Your task to perform on an android device: Search for usb-a to usb-b on bestbuy, select the first entry, and add it to the cart. Image 0: 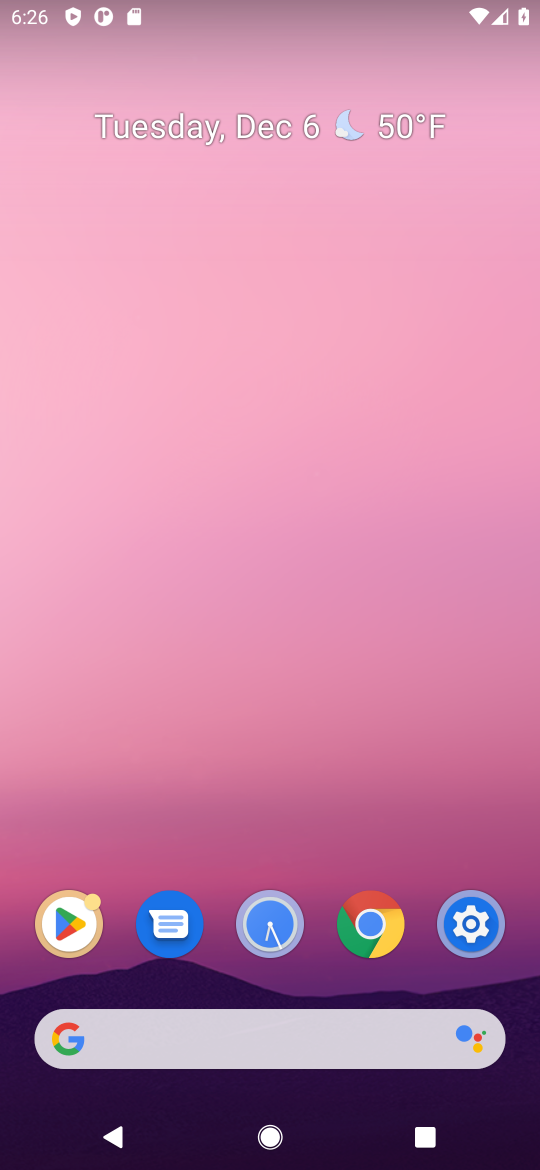
Step 0: click (202, 1034)
Your task to perform on an android device: Search for usb-a to usb-b on bestbuy, select the first entry, and add it to the cart. Image 1: 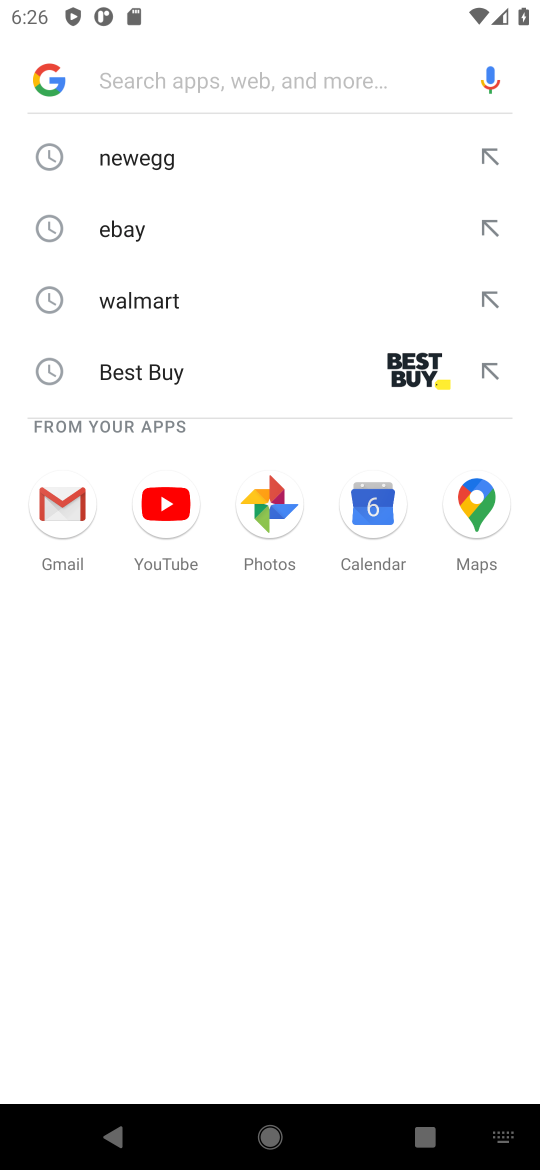
Step 1: type "bestbuy"
Your task to perform on an android device: Search for usb-a to usb-b on bestbuy, select the first entry, and add it to the cart. Image 2: 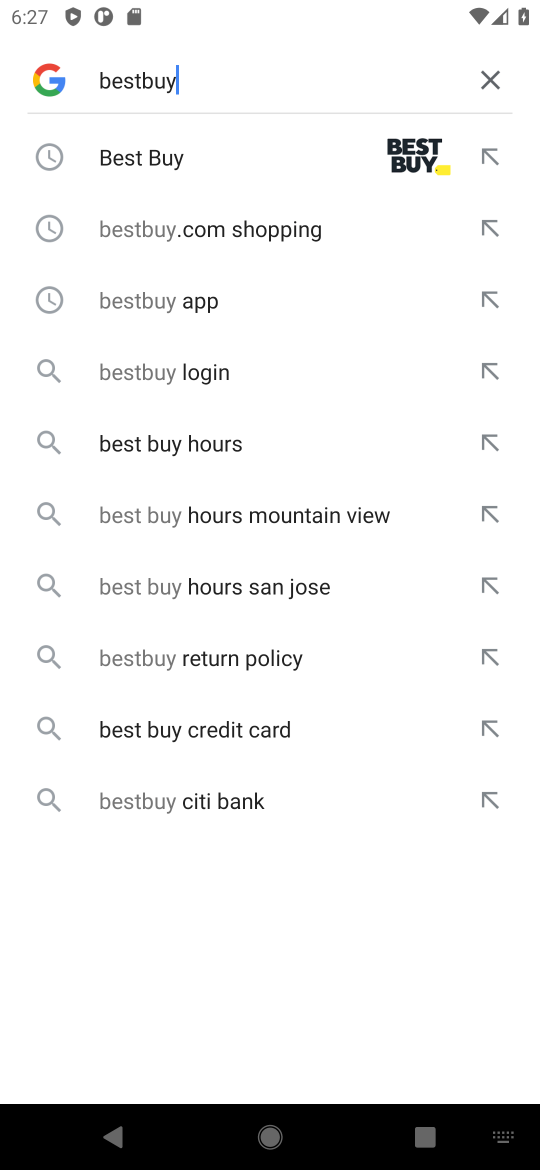
Step 2: click (252, 150)
Your task to perform on an android device: Search for usb-a to usb-b on bestbuy, select the first entry, and add it to the cart. Image 3: 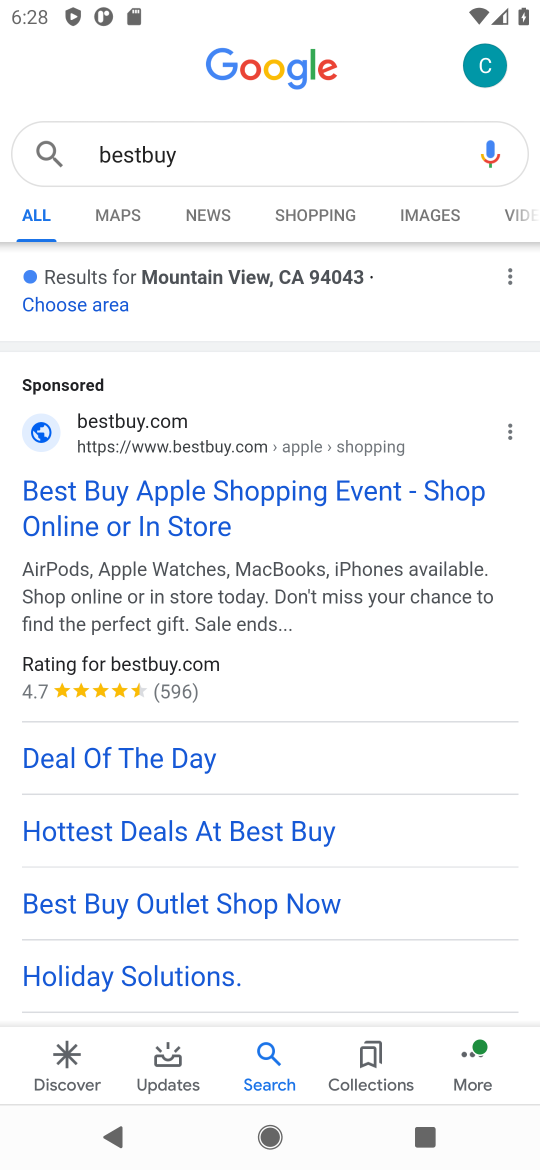
Step 3: click (138, 528)
Your task to perform on an android device: Search for usb-a to usb-b on bestbuy, select the first entry, and add it to the cart. Image 4: 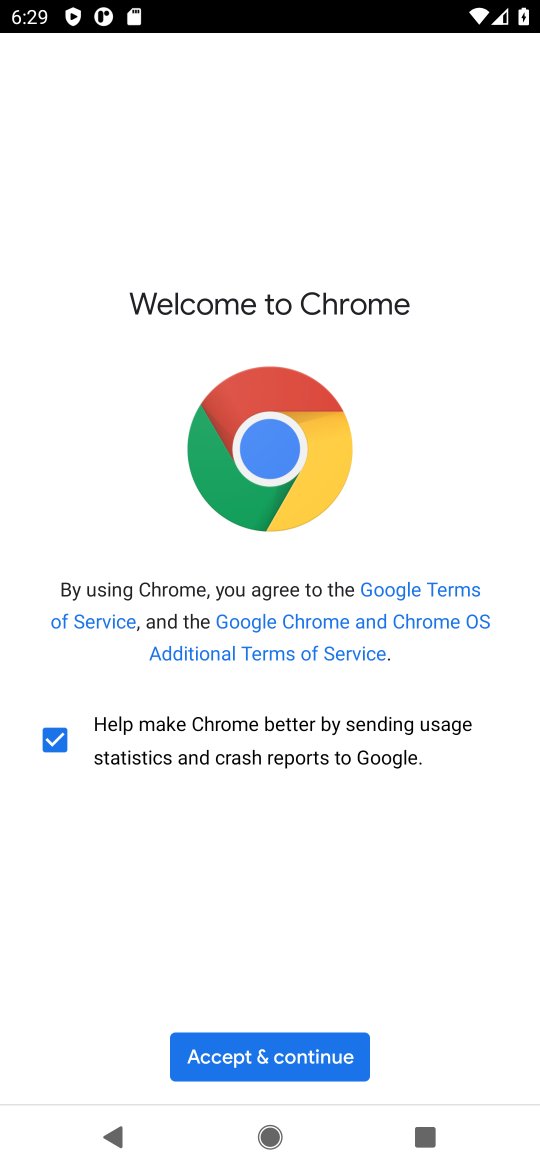
Step 4: click (299, 1060)
Your task to perform on an android device: Search for usb-a to usb-b on bestbuy, select the first entry, and add it to the cart. Image 5: 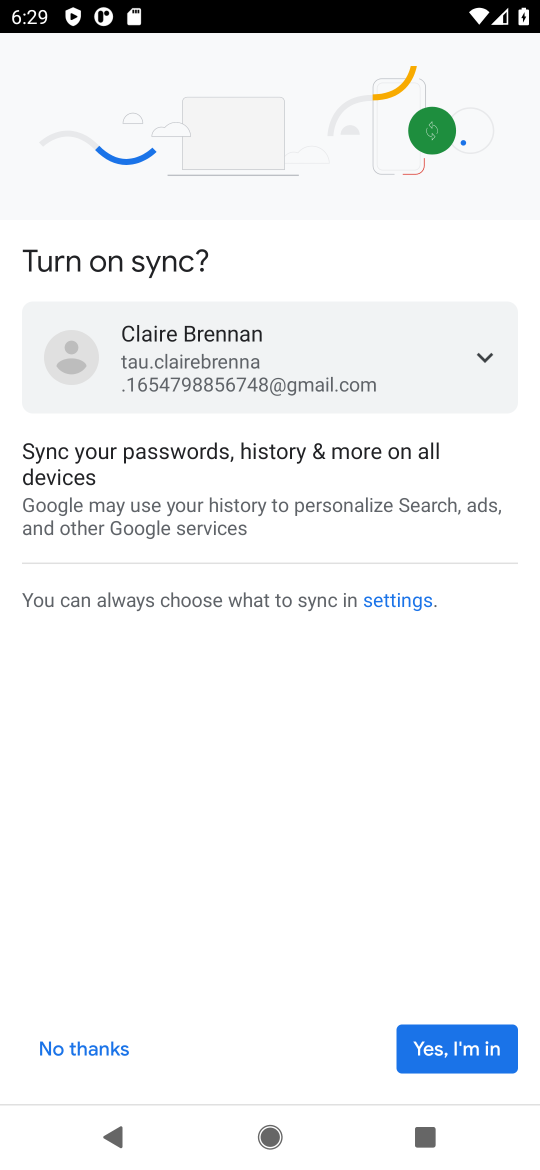
Step 5: click (431, 1066)
Your task to perform on an android device: Search for usb-a to usb-b on bestbuy, select the first entry, and add it to the cart. Image 6: 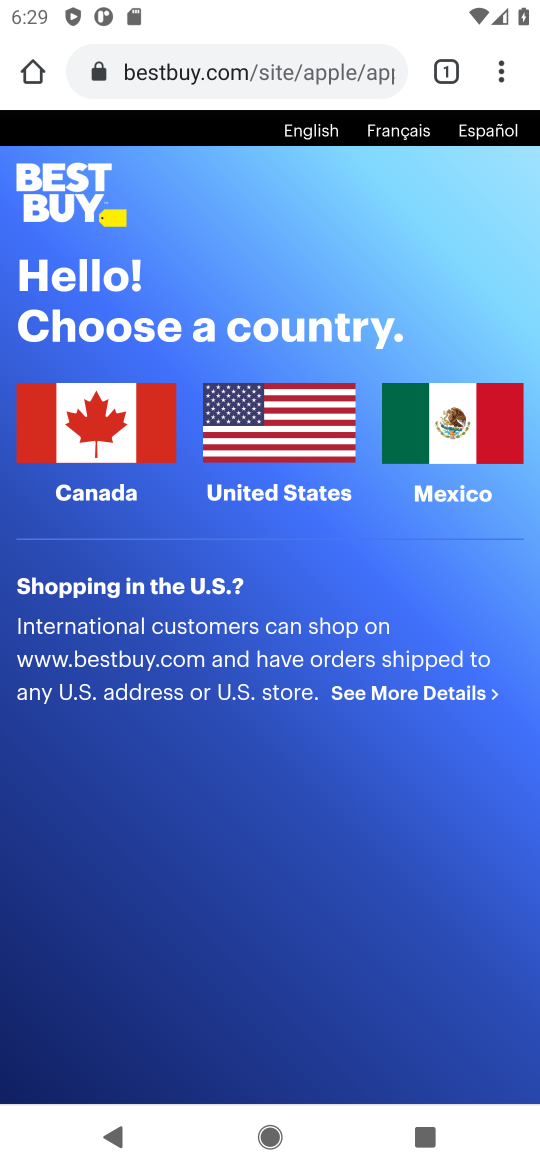
Step 6: click (52, 464)
Your task to perform on an android device: Search for usb-a to usb-b on bestbuy, select the first entry, and add it to the cart. Image 7: 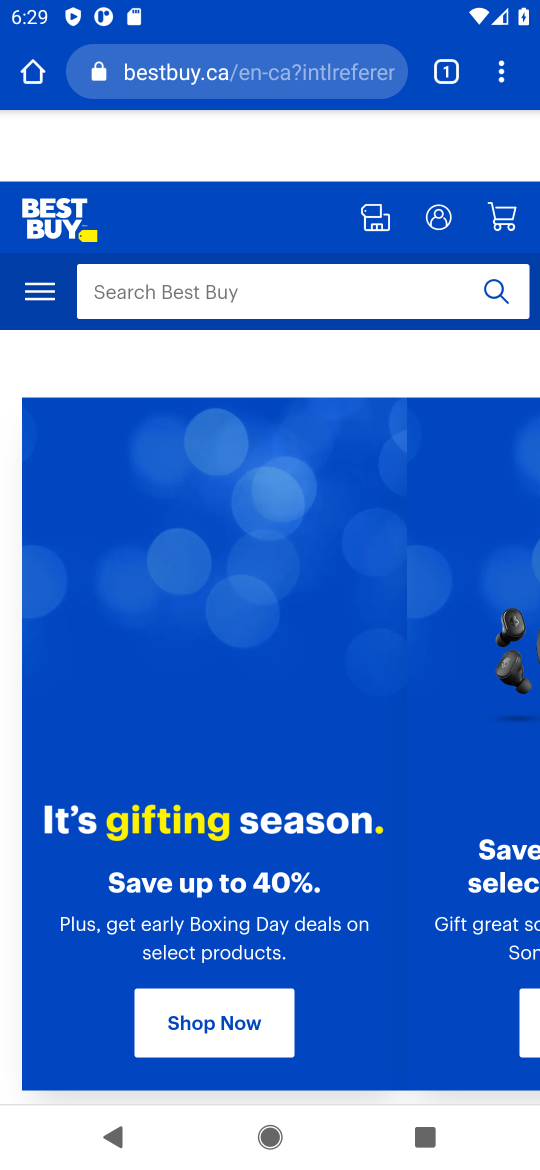
Step 7: task complete